Your task to perform on an android device: create a new album in the google photos Image 0: 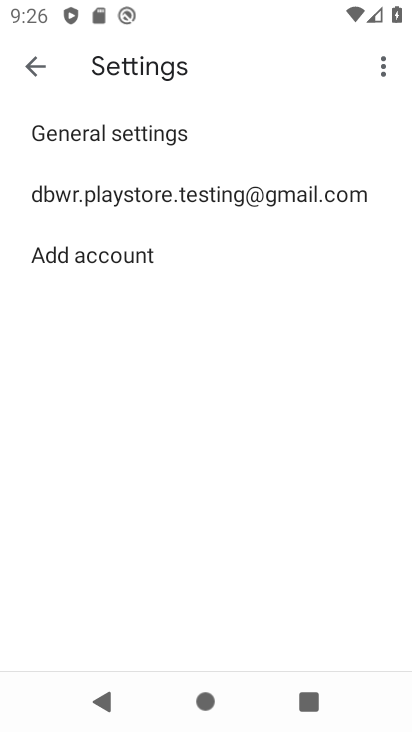
Step 0: press home button
Your task to perform on an android device: create a new album in the google photos Image 1: 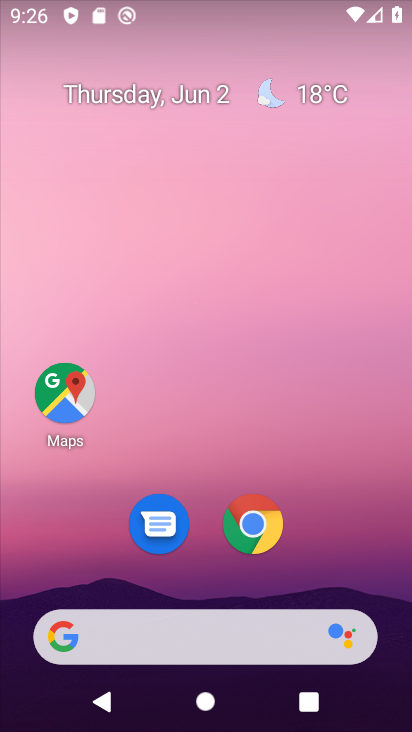
Step 1: drag from (304, 517) to (262, 13)
Your task to perform on an android device: create a new album in the google photos Image 2: 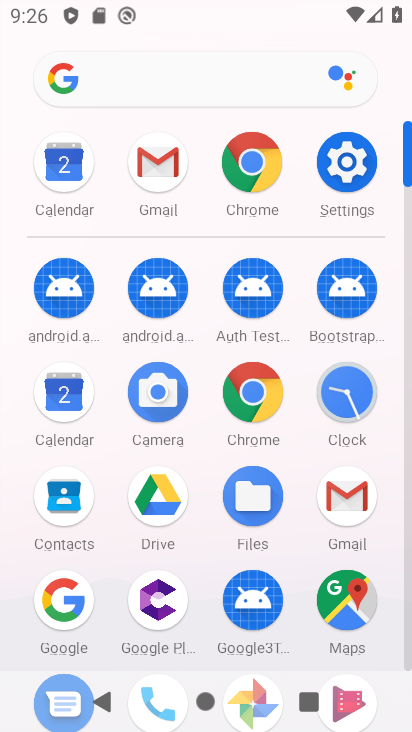
Step 2: drag from (299, 489) to (303, 349)
Your task to perform on an android device: create a new album in the google photos Image 3: 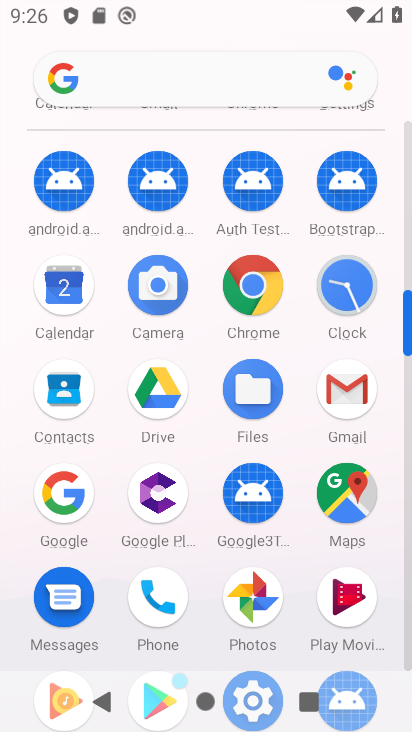
Step 3: click (259, 585)
Your task to perform on an android device: create a new album in the google photos Image 4: 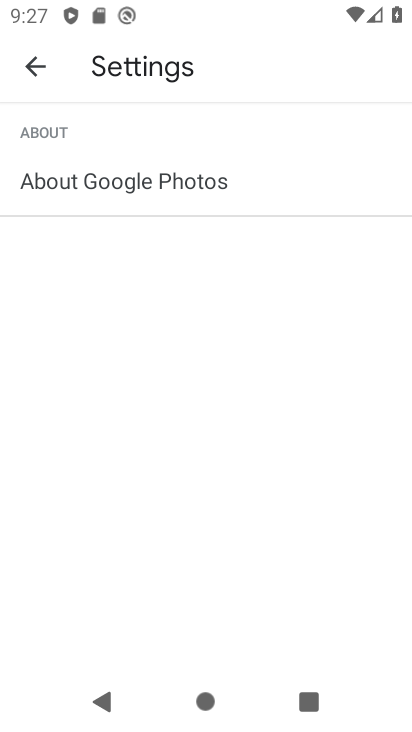
Step 4: click (37, 66)
Your task to perform on an android device: create a new album in the google photos Image 5: 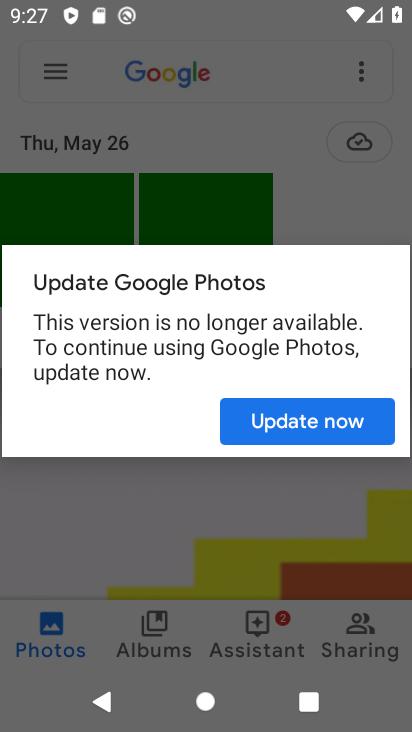
Step 5: click (324, 420)
Your task to perform on an android device: create a new album in the google photos Image 6: 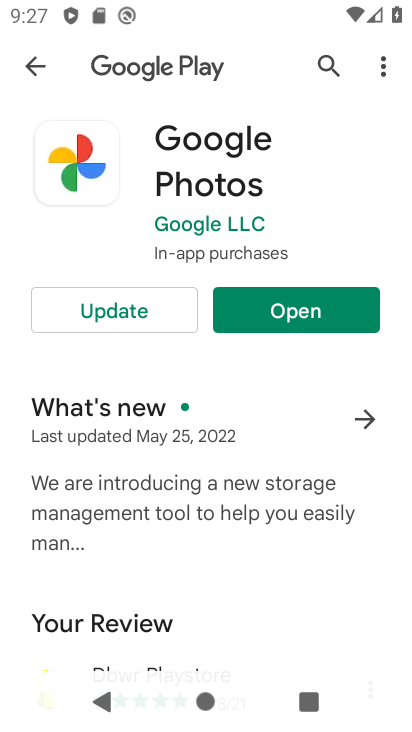
Step 6: click (327, 311)
Your task to perform on an android device: create a new album in the google photos Image 7: 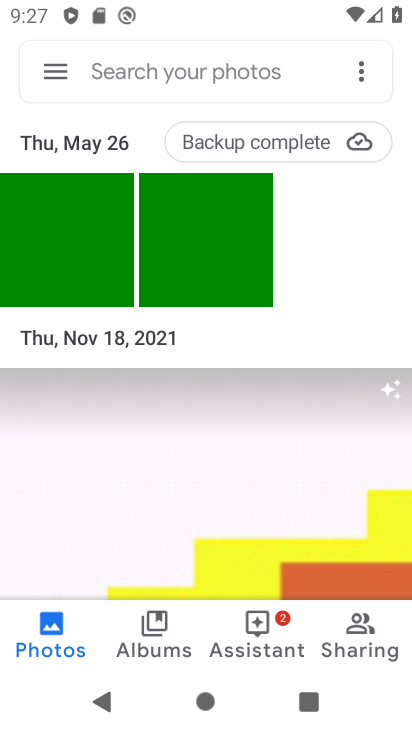
Step 7: click (152, 635)
Your task to perform on an android device: create a new album in the google photos Image 8: 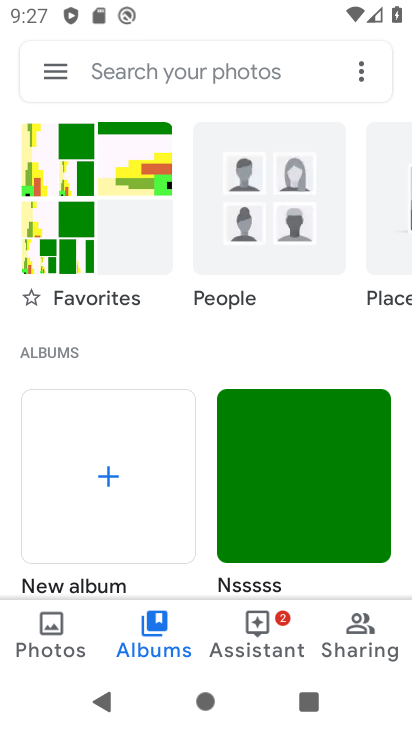
Step 8: click (112, 476)
Your task to perform on an android device: create a new album in the google photos Image 9: 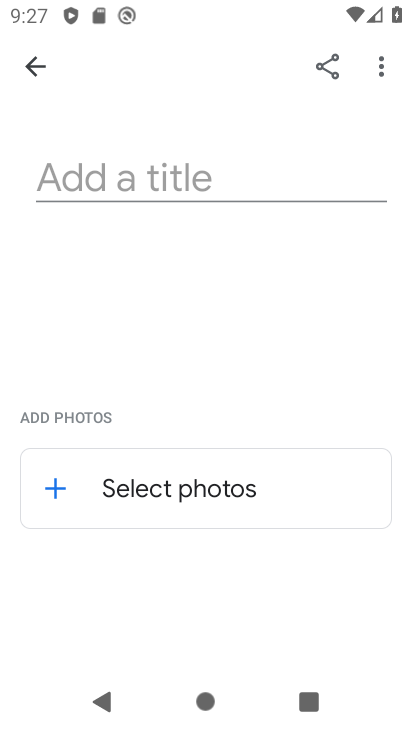
Step 9: click (224, 183)
Your task to perform on an android device: create a new album in the google photos Image 10: 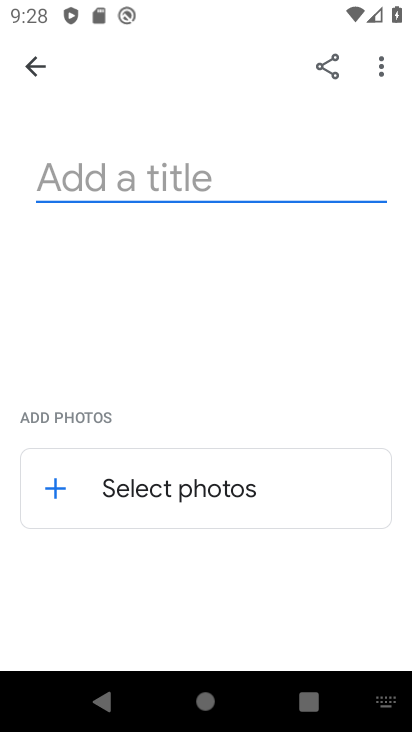
Step 10: type "Rukamani Vivah"
Your task to perform on an android device: create a new album in the google photos Image 11: 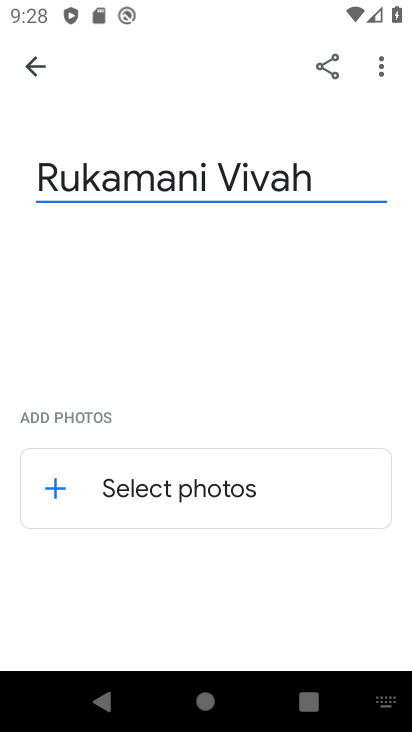
Step 11: click (56, 489)
Your task to perform on an android device: create a new album in the google photos Image 12: 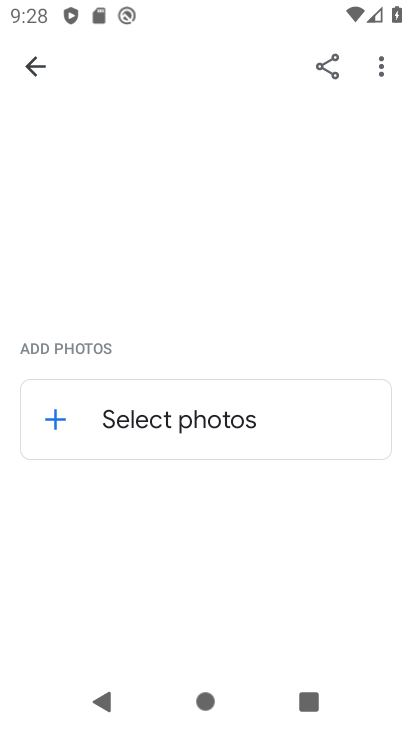
Step 12: click (54, 413)
Your task to perform on an android device: create a new album in the google photos Image 13: 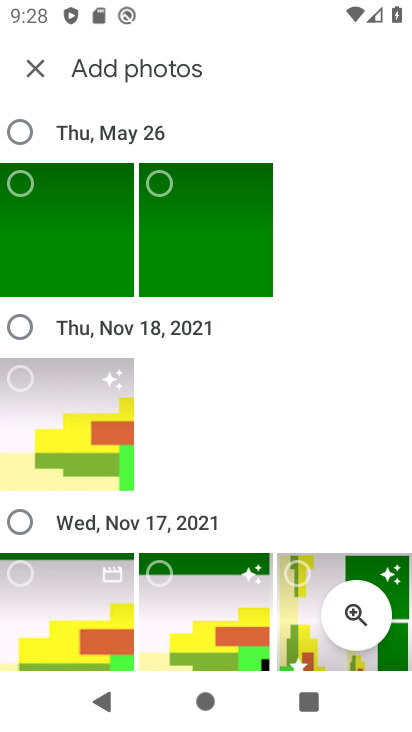
Step 13: click (26, 516)
Your task to perform on an android device: create a new album in the google photos Image 14: 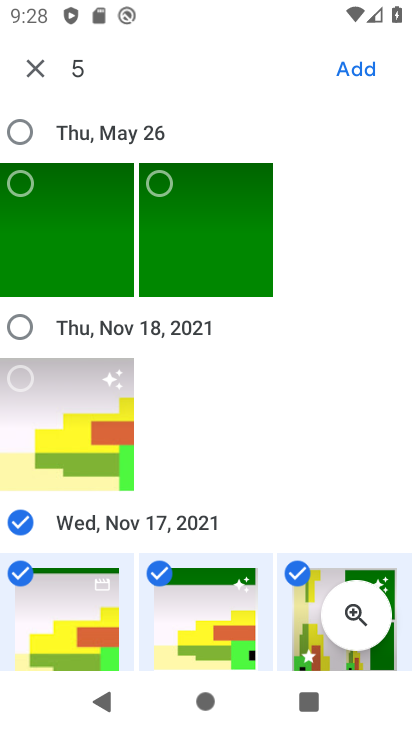
Step 14: click (359, 62)
Your task to perform on an android device: create a new album in the google photos Image 15: 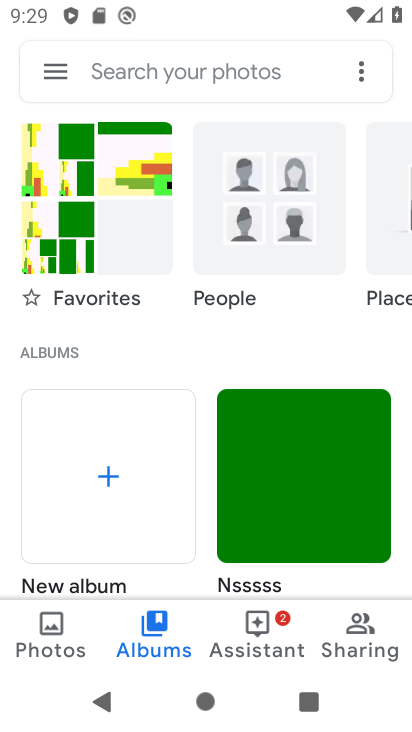
Step 15: task complete